Your task to perform on an android device: Go to Google Image 0: 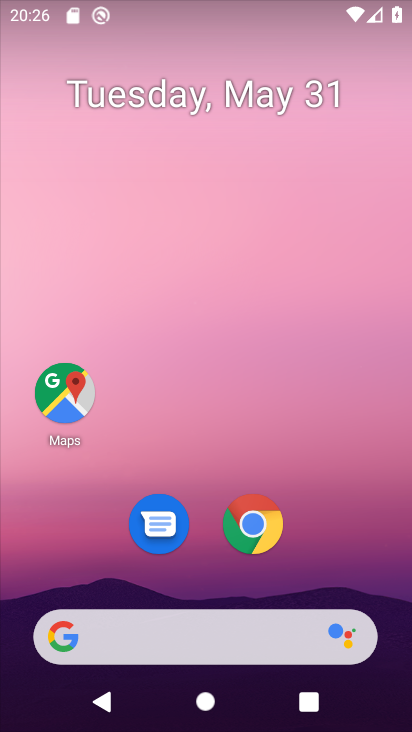
Step 0: click (201, 637)
Your task to perform on an android device: Go to Google Image 1: 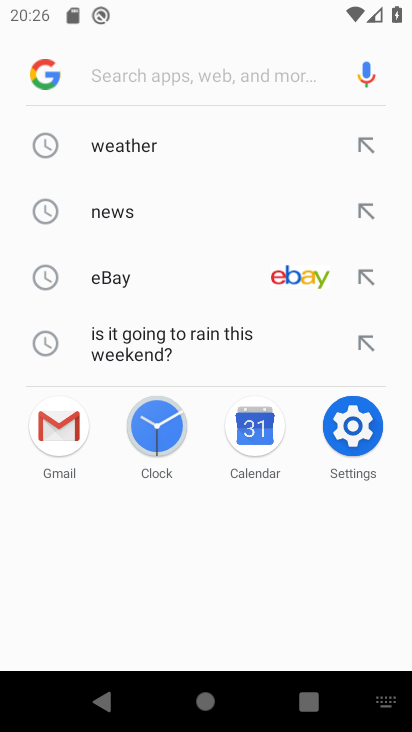
Step 1: click (48, 70)
Your task to perform on an android device: Go to Google Image 2: 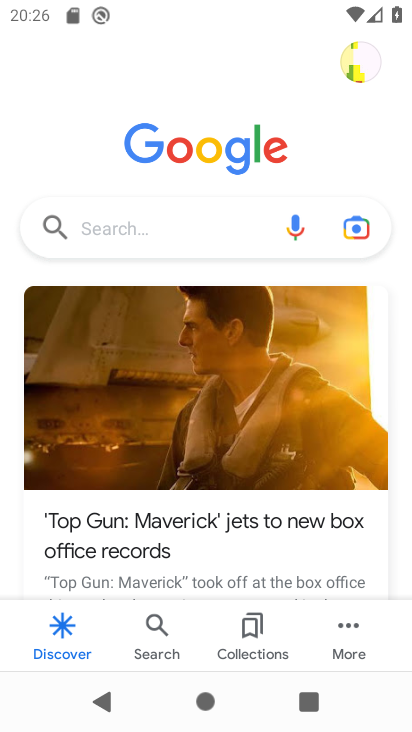
Step 2: task complete